Your task to perform on an android device: toggle data saver in the chrome app Image 0: 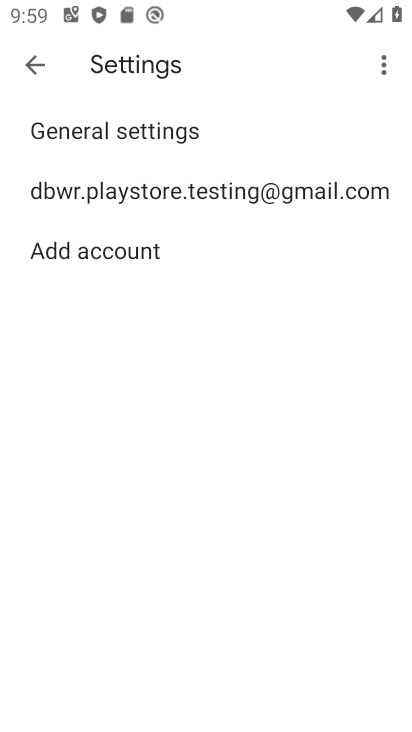
Step 0: press home button
Your task to perform on an android device: toggle data saver in the chrome app Image 1: 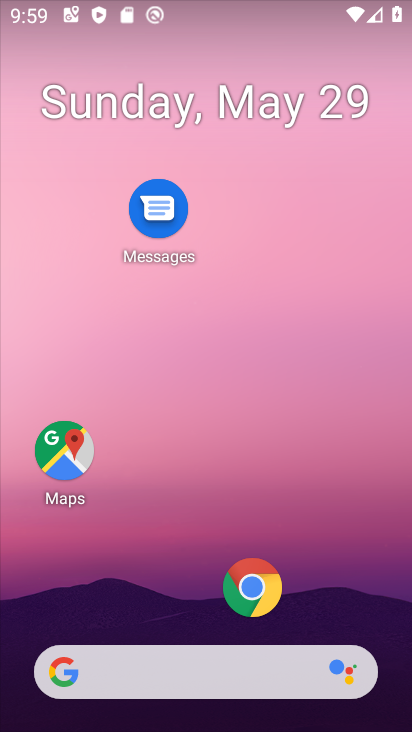
Step 1: click (238, 581)
Your task to perform on an android device: toggle data saver in the chrome app Image 2: 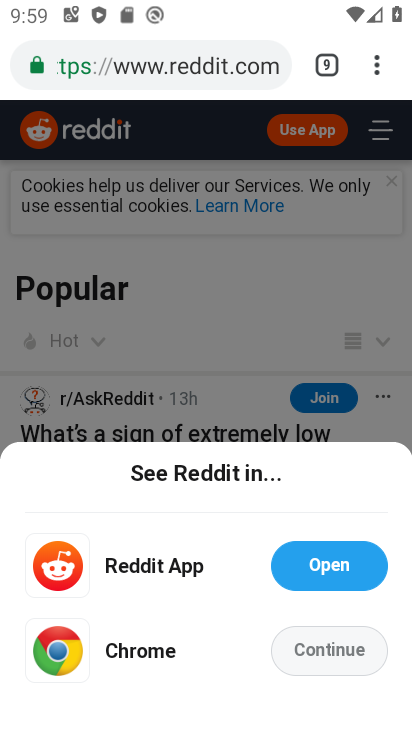
Step 2: drag from (372, 54) to (156, 622)
Your task to perform on an android device: toggle data saver in the chrome app Image 3: 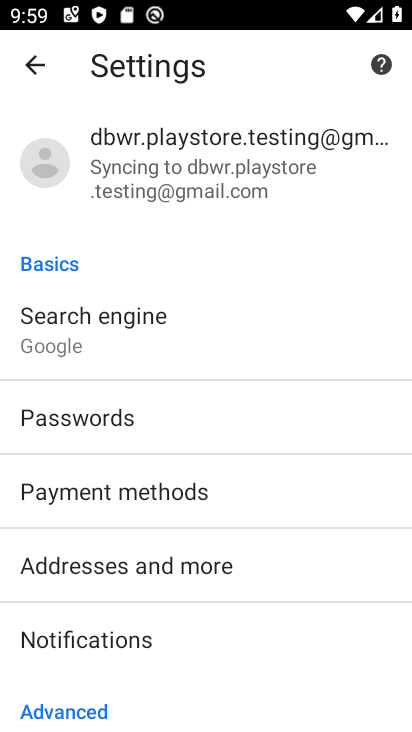
Step 3: drag from (222, 612) to (283, 29)
Your task to perform on an android device: toggle data saver in the chrome app Image 4: 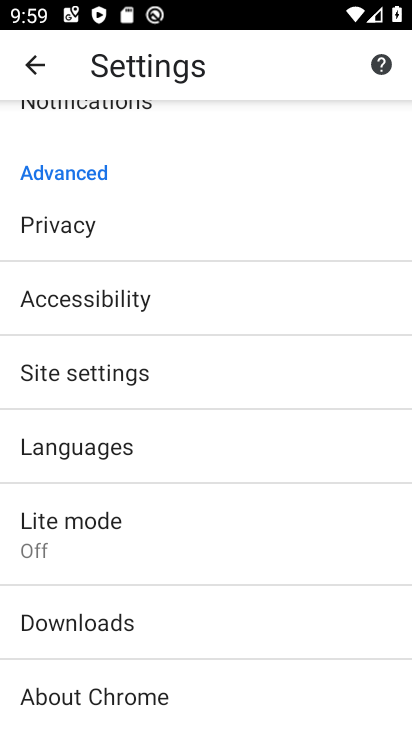
Step 4: click (91, 524)
Your task to perform on an android device: toggle data saver in the chrome app Image 5: 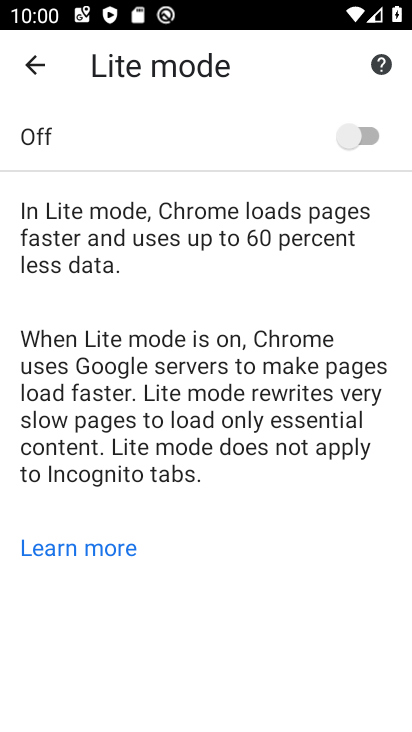
Step 5: click (364, 133)
Your task to perform on an android device: toggle data saver in the chrome app Image 6: 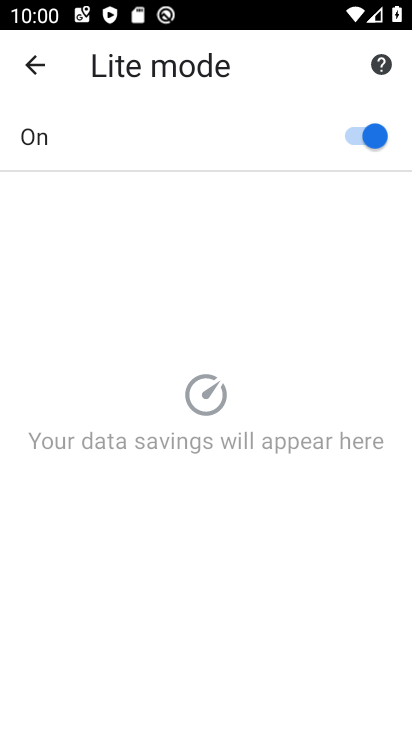
Step 6: task complete